Your task to perform on an android device: turn off javascript in the chrome app Image 0: 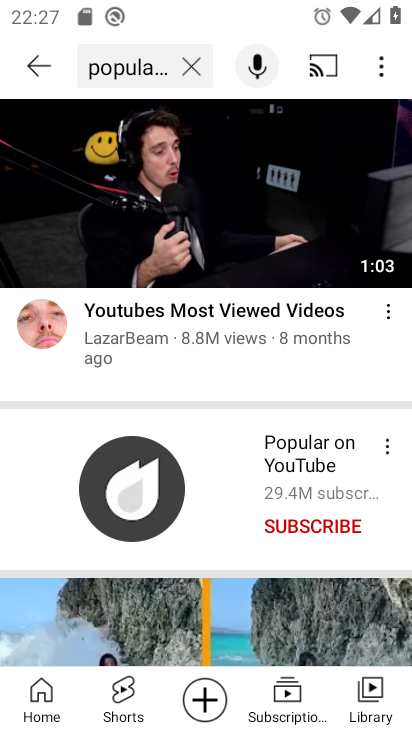
Step 0: press home button
Your task to perform on an android device: turn off javascript in the chrome app Image 1: 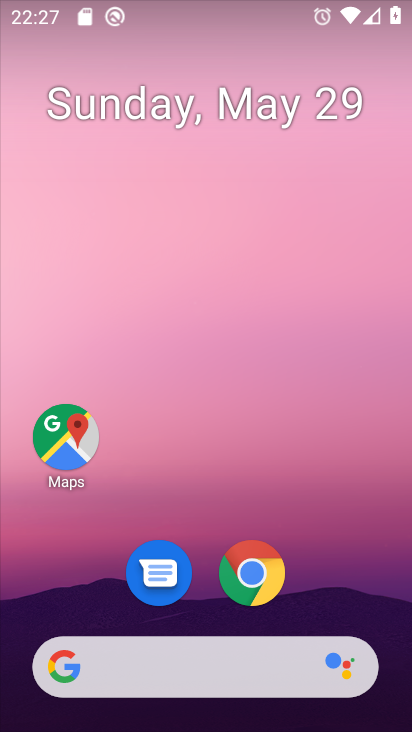
Step 1: click (251, 573)
Your task to perform on an android device: turn off javascript in the chrome app Image 2: 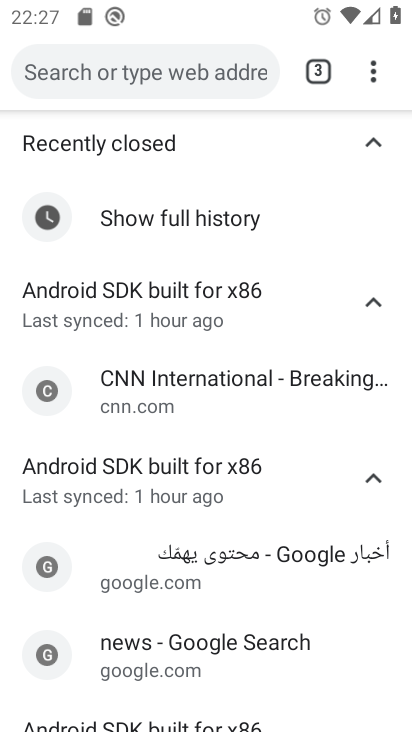
Step 2: click (368, 72)
Your task to perform on an android device: turn off javascript in the chrome app Image 3: 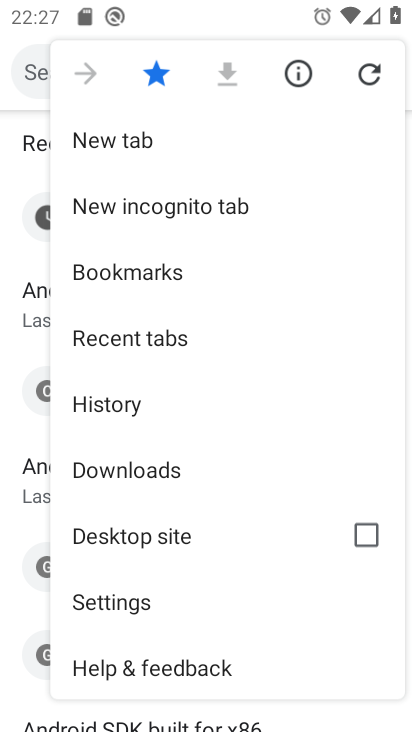
Step 3: click (181, 609)
Your task to perform on an android device: turn off javascript in the chrome app Image 4: 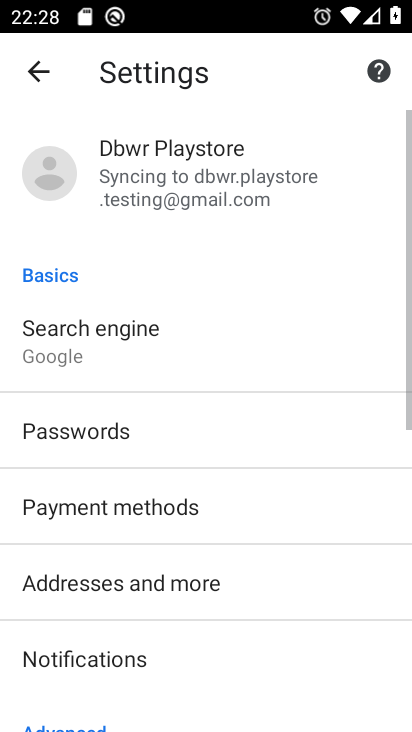
Step 4: drag from (183, 596) to (215, 361)
Your task to perform on an android device: turn off javascript in the chrome app Image 5: 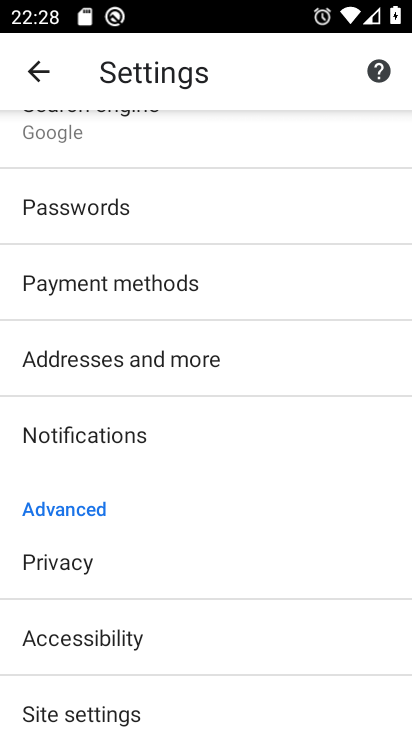
Step 5: click (193, 705)
Your task to perform on an android device: turn off javascript in the chrome app Image 6: 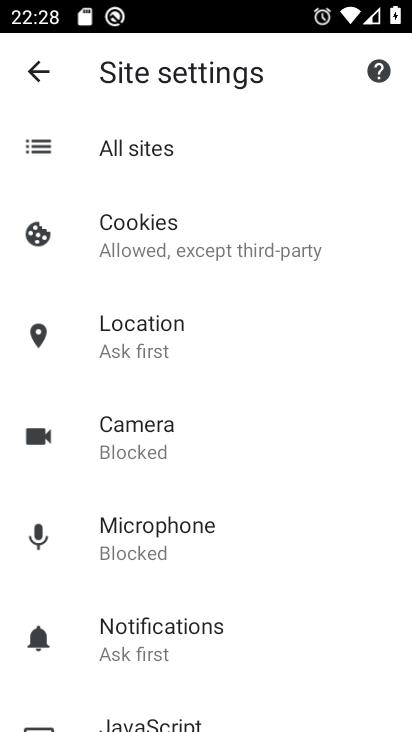
Step 6: drag from (274, 586) to (294, 309)
Your task to perform on an android device: turn off javascript in the chrome app Image 7: 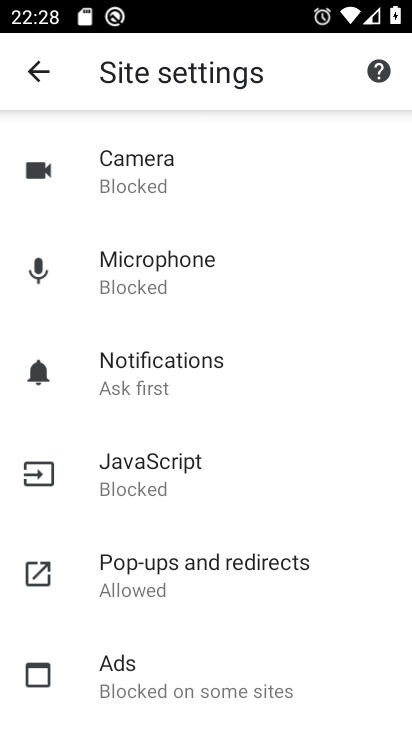
Step 7: click (237, 465)
Your task to perform on an android device: turn off javascript in the chrome app Image 8: 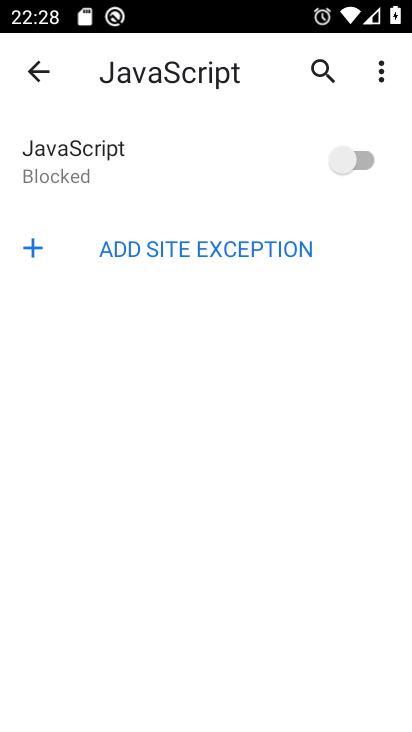
Step 8: task complete